Your task to perform on an android device: turn on improve location accuracy Image 0: 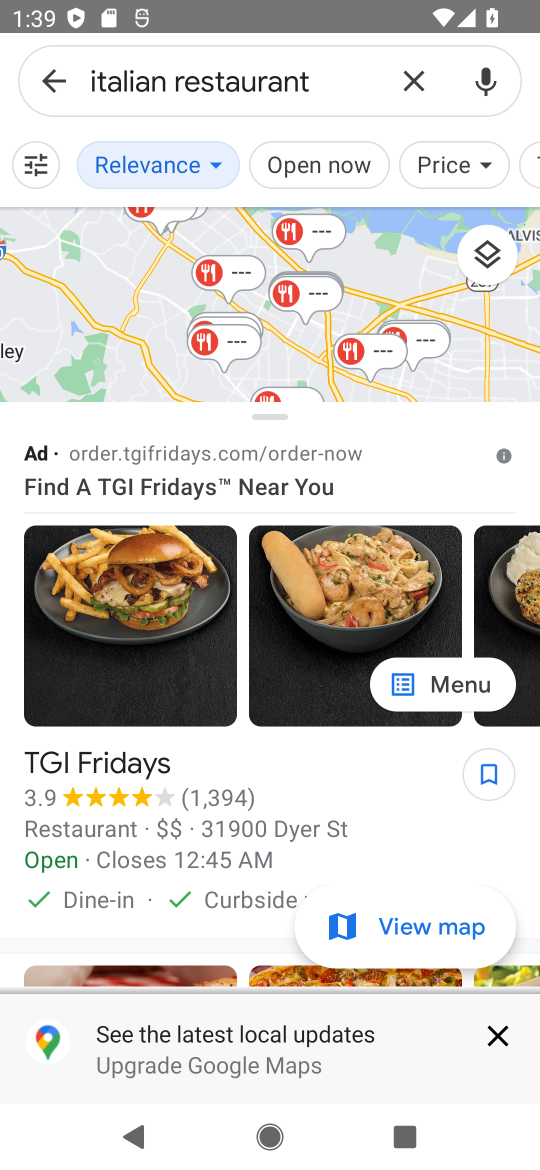
Step 0: press home button
Your task to perform on an android device: turn on improve location accuracy Image 1: 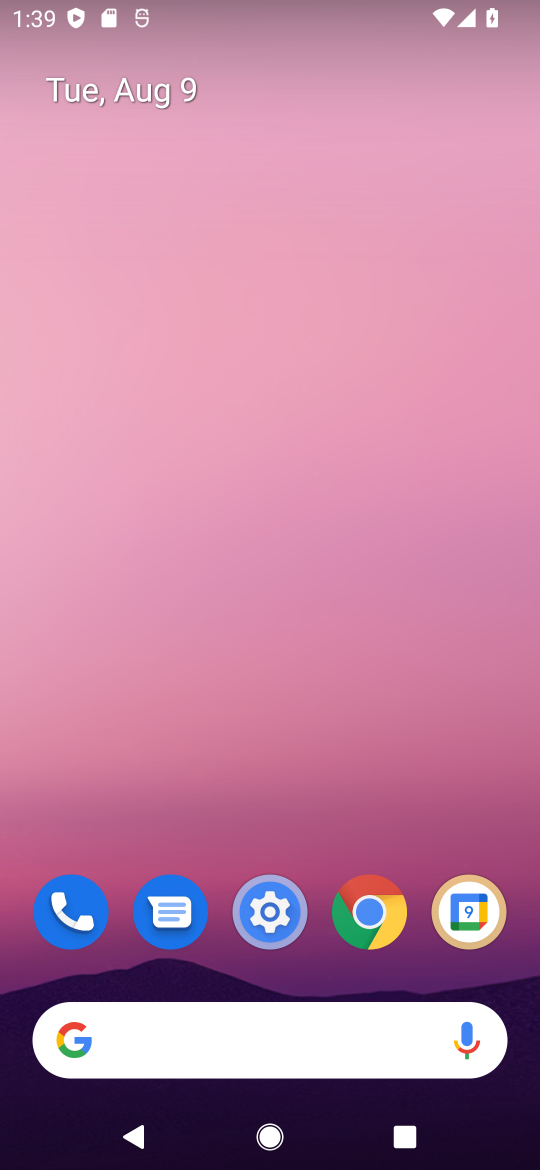
Step 1: click (266, 913)
Your task to perform on an android device: turn on improve location accuracy Image 2: 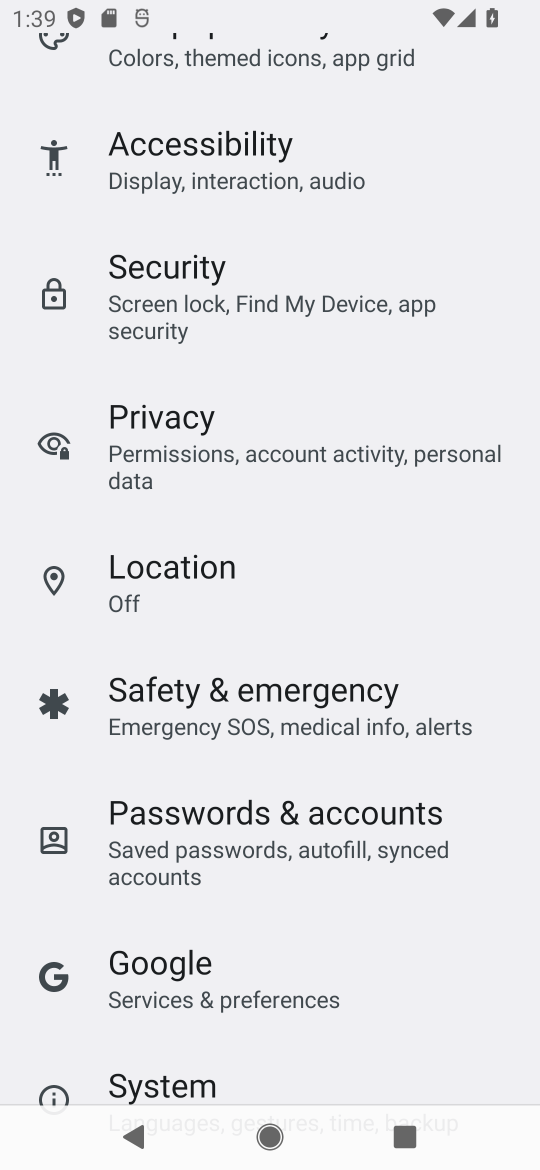
Step 2: click (182, 557)
Your task to perform on an android device: turn on improve location accuracy Image 3: 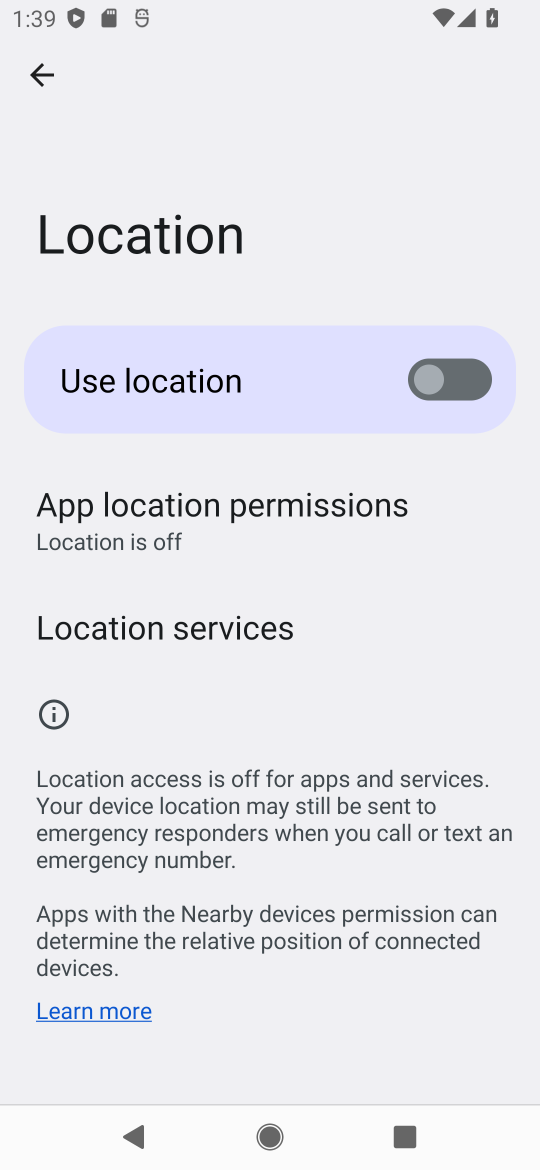
Step 3: click (188, 620)
Your task to perform on an android device: turn on improve location accuracy Image 4: 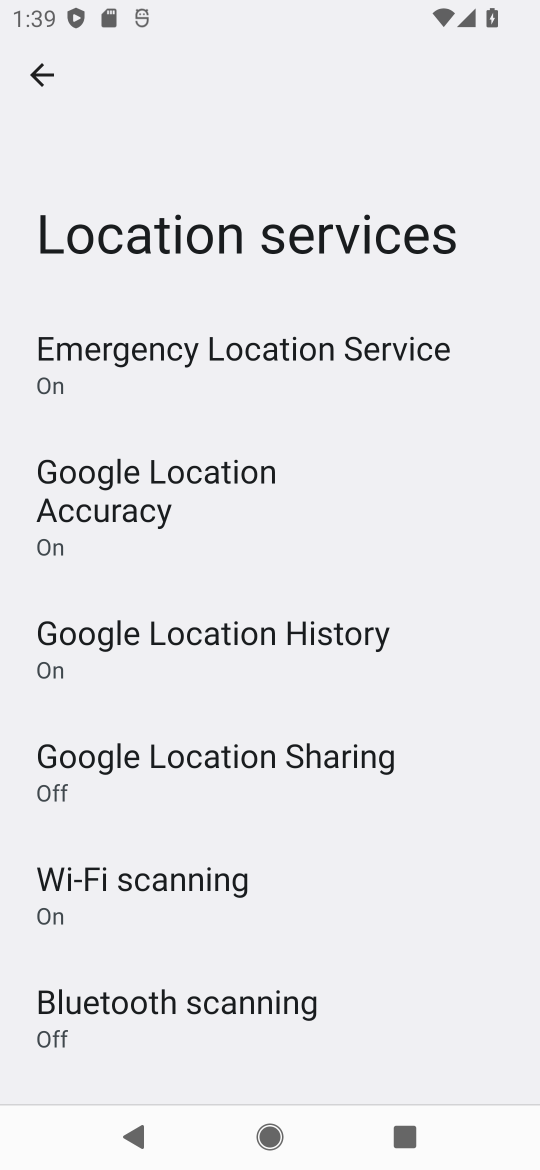
Step 4: click (148, 470)
Your task to perform on an android device: turn on improve location accuracy Image 5: 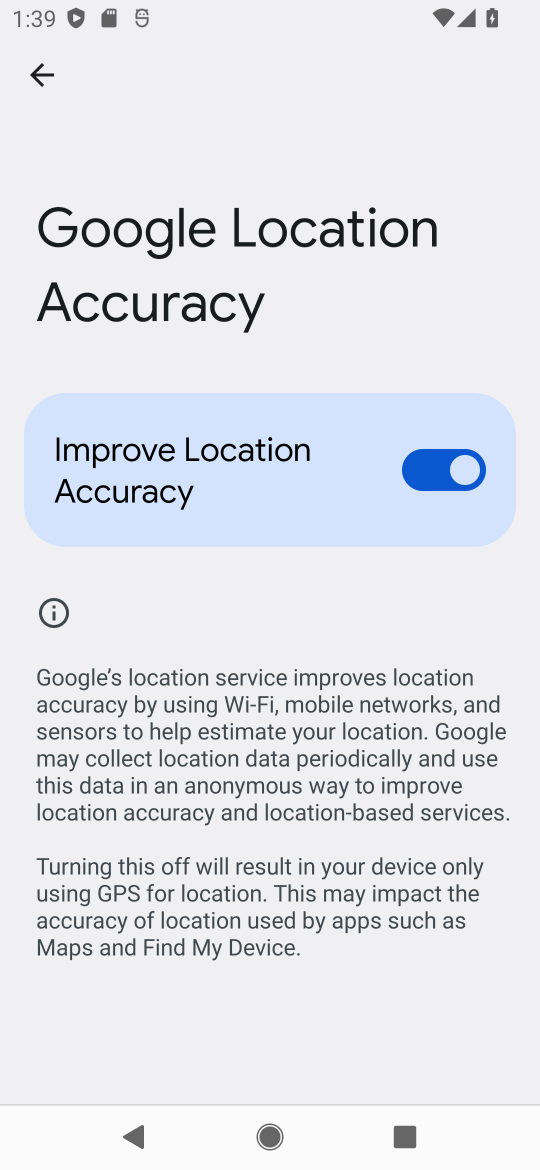
Step 5: task complete